Your task to perform on an android device: Clear all items from cart on ebay.com. Image 0: 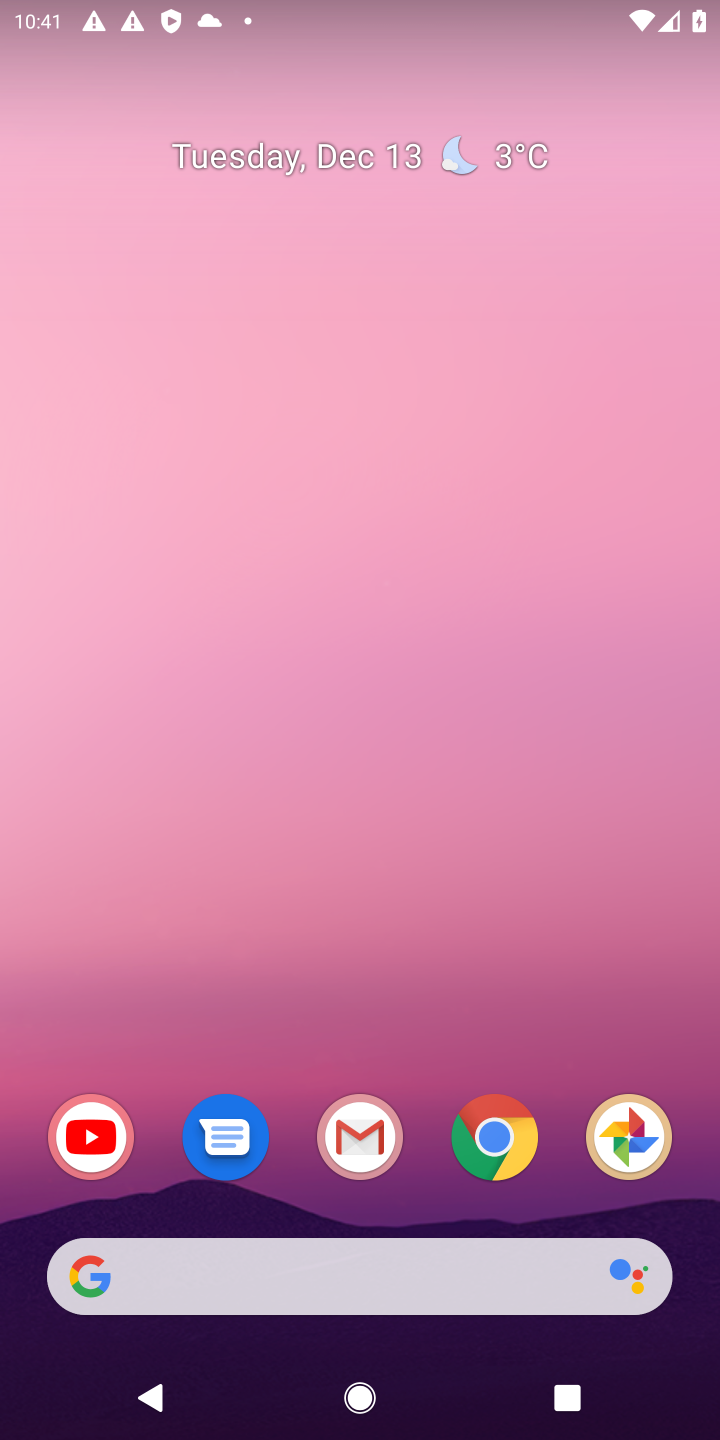
Step 0: click (468, 1146)
Your task to perform on an android device: Clear all items from cart on ebay.com. Image 1: 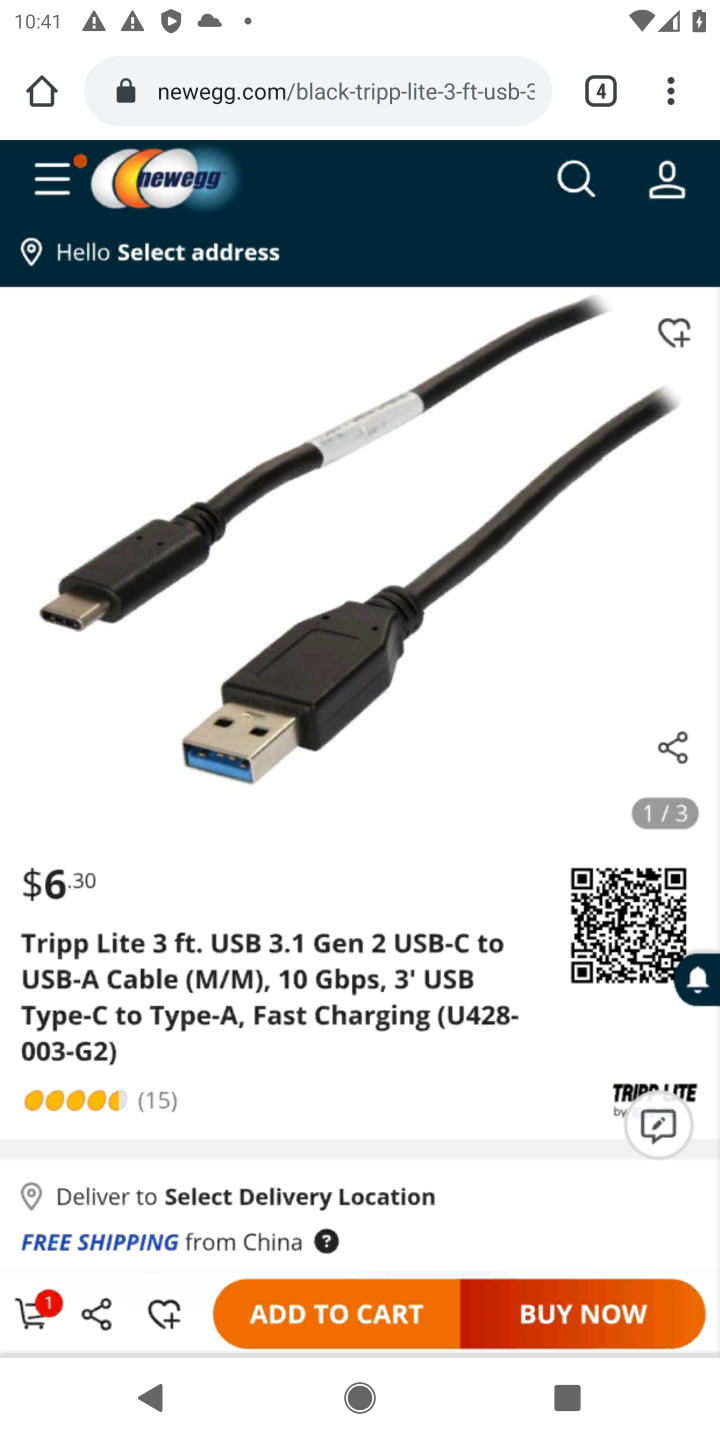
Step 1: click (604, 87)
Your task to perform on an android device: Clear all items from cart on ebay.com. Image 2: 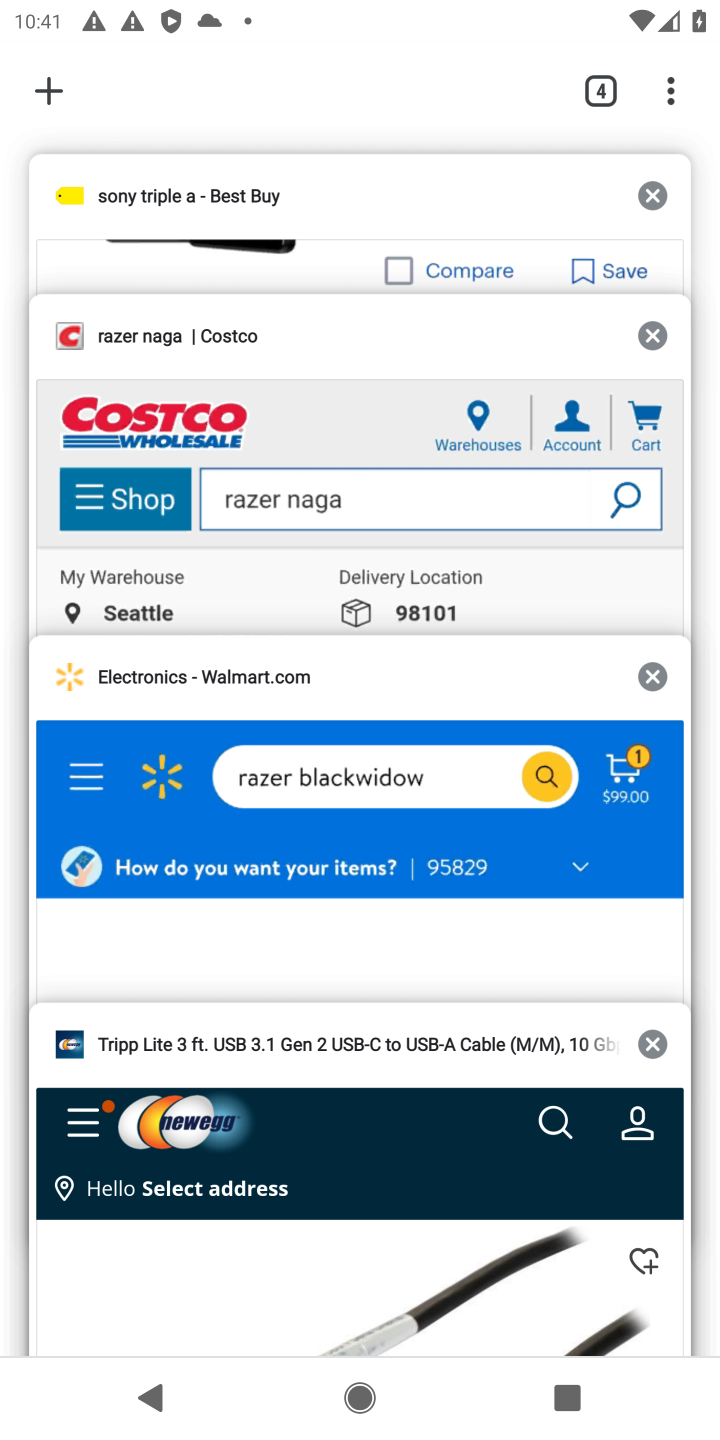
Step 2: click (49, 97)
Your task to perform on an android device: Clear all items from cart on ebay.com. Image 3: 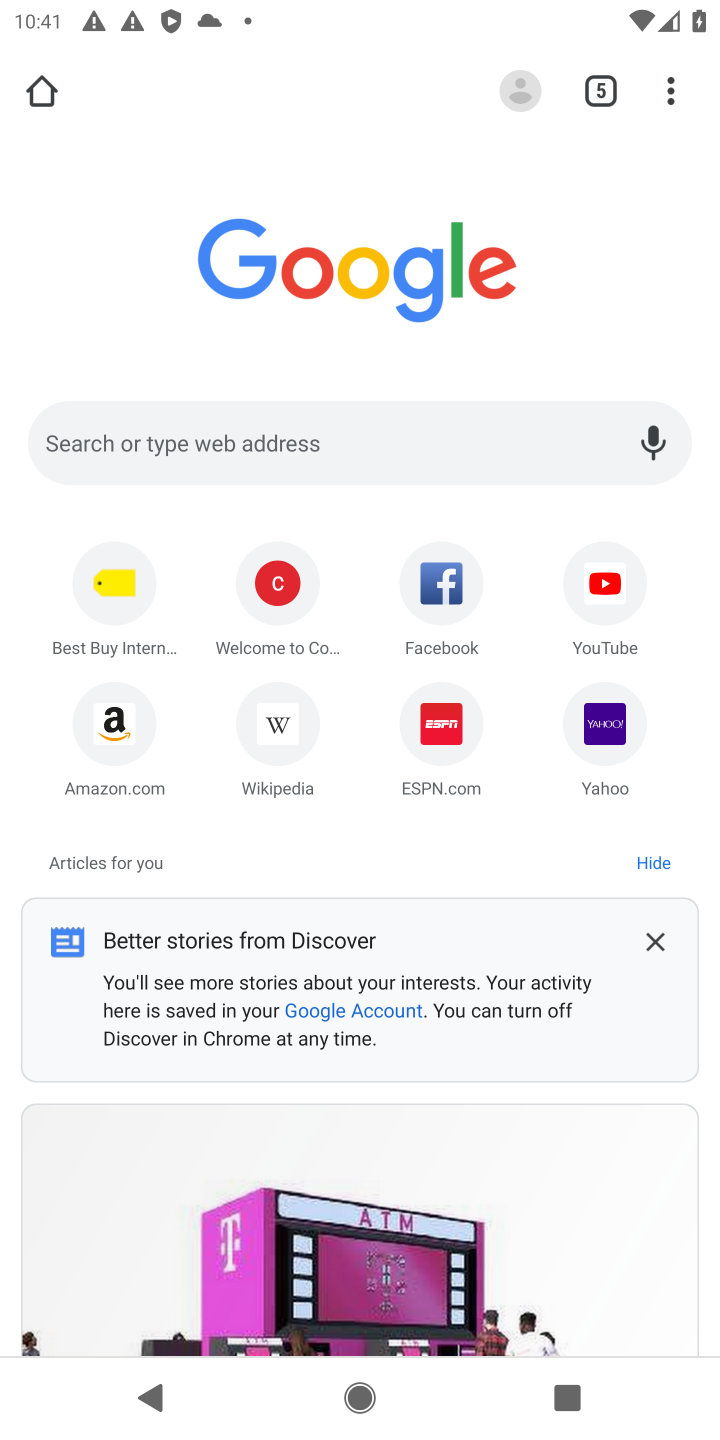
Step 3: click (310, 433)
Your task to perform on an android device: Clear all items from cart on ebay.com. Image 4: 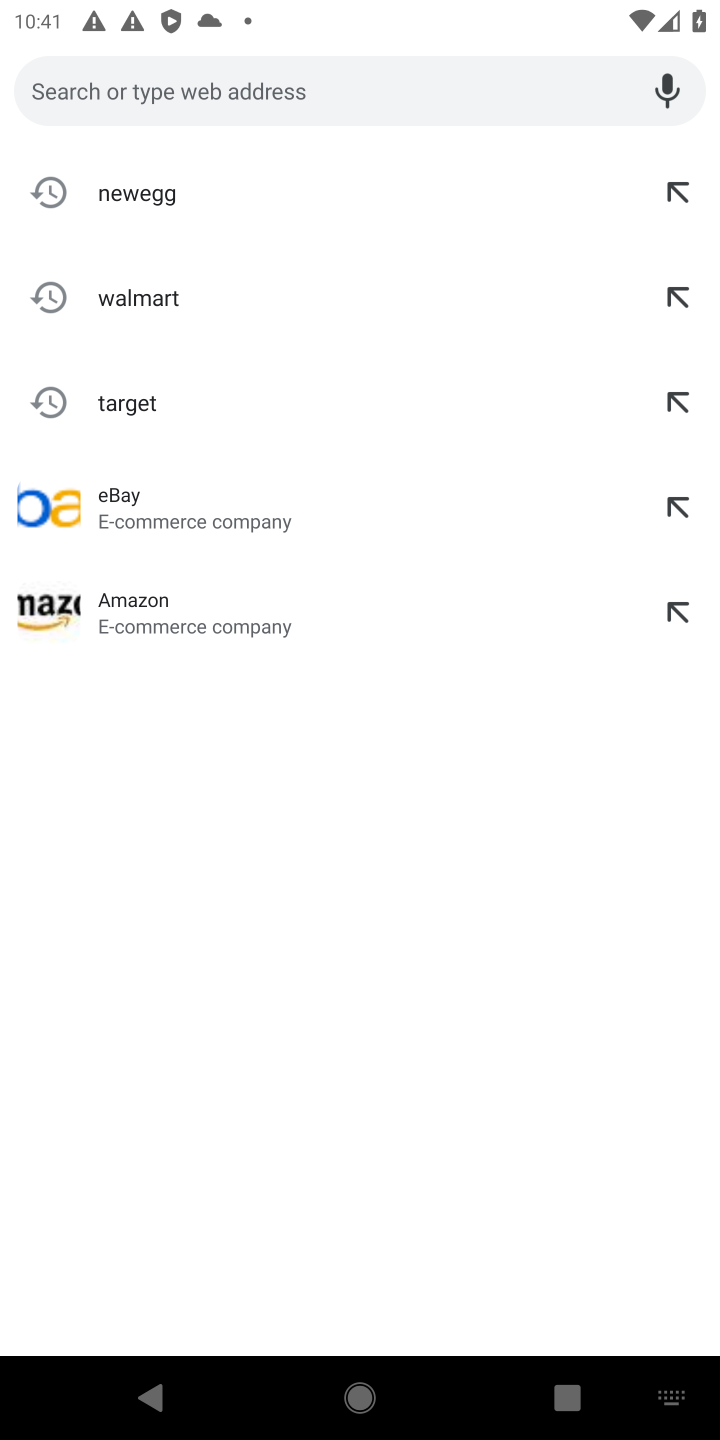
Step 4: click (217, 519)
Your task to perform on an android device: Clear all items from cart on ebay.com. Image 5: 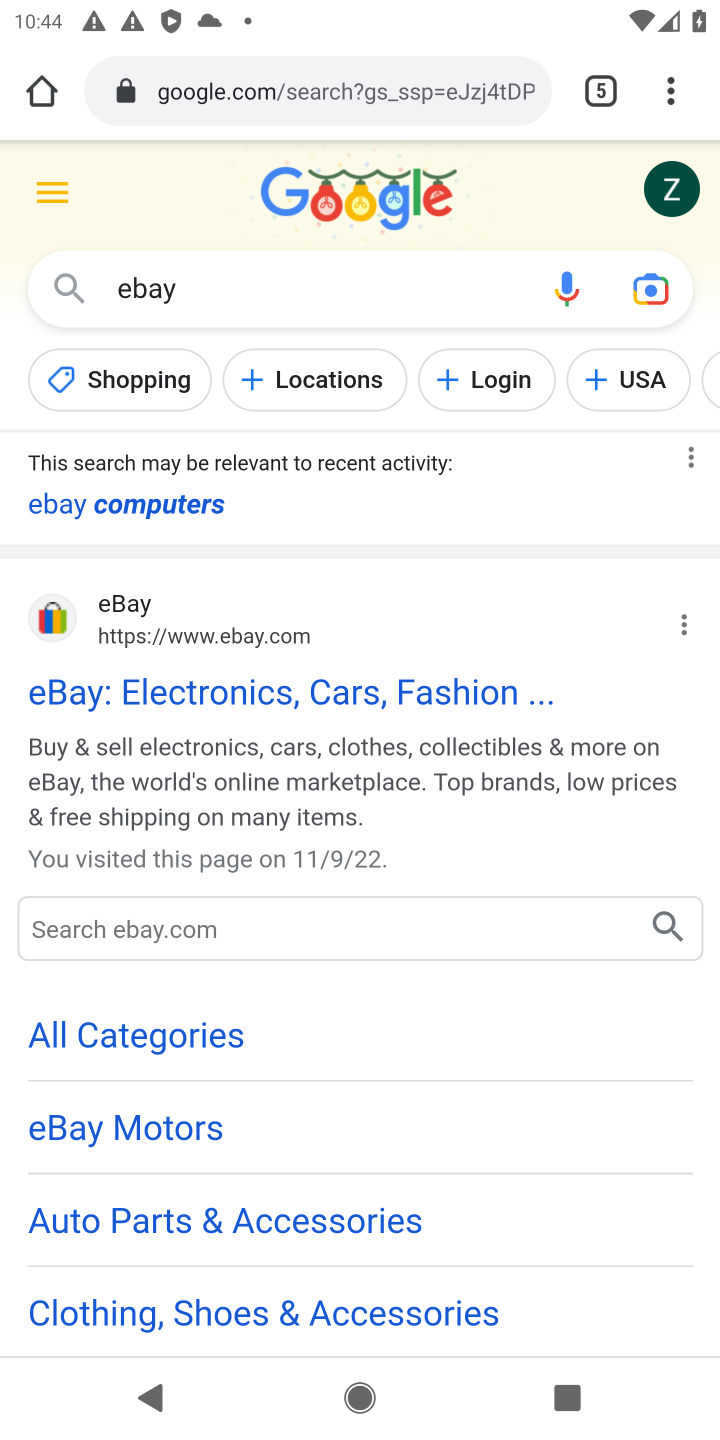
Step 5: click (118, 696)
Your task to perform on an android device: Clear all items from cart on ebay.com. Image 6: 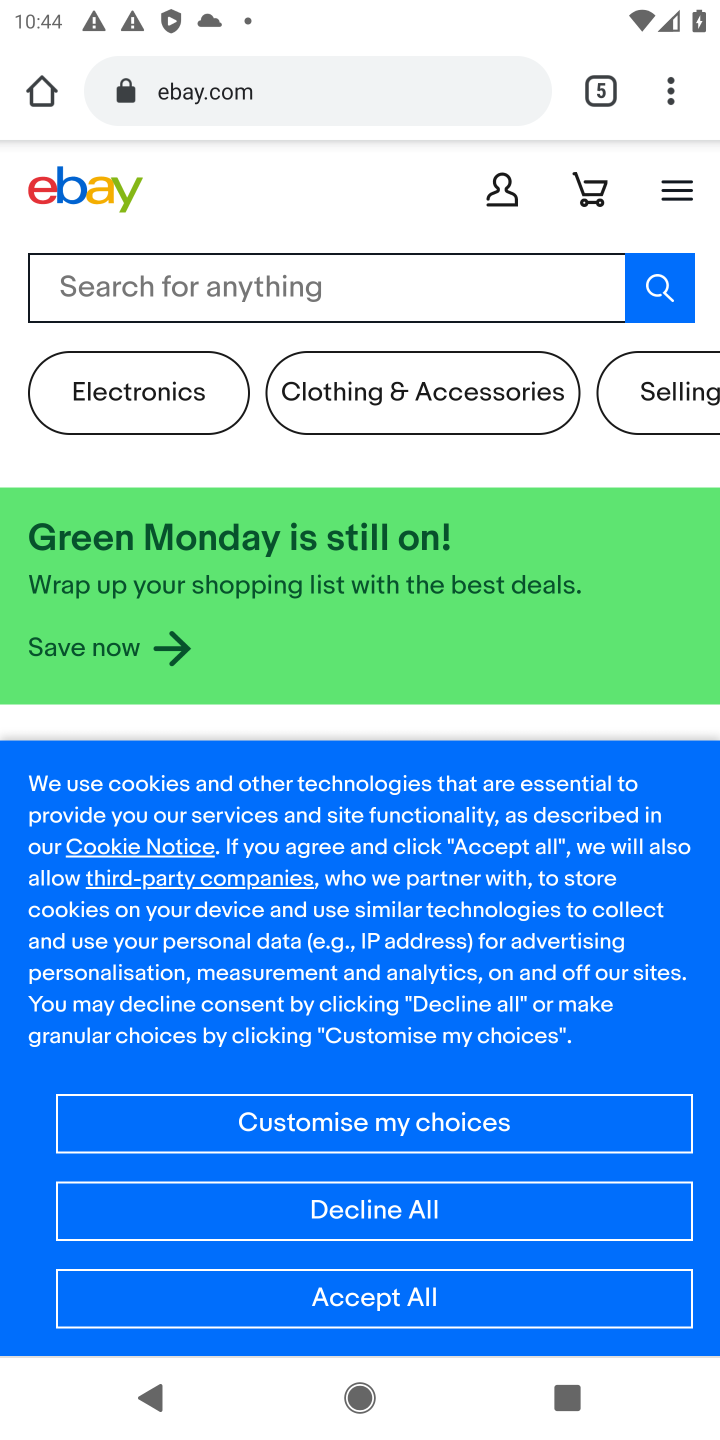
Step 6: click (564, 186)
Your task to perform on an android device: Clear all items from cart on ebay.com. Image 7: 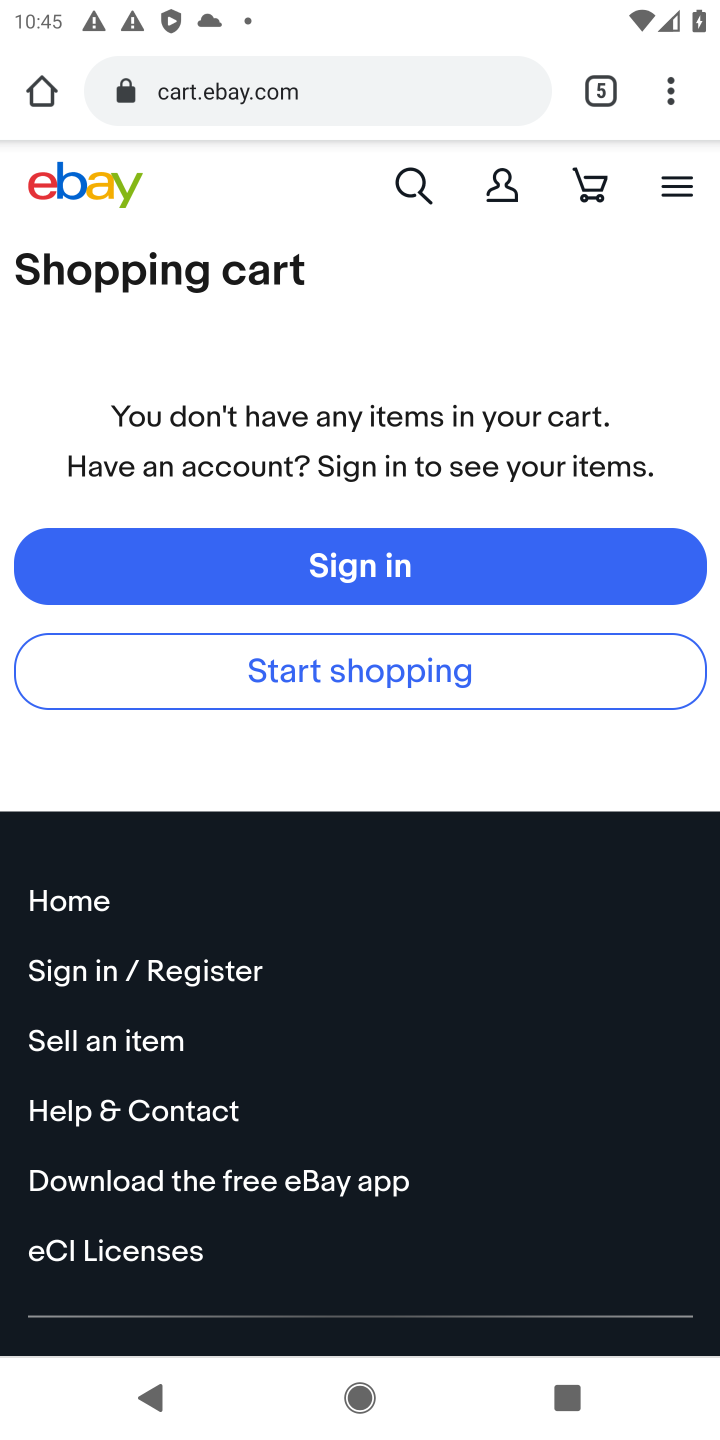
Step 7: task complete